Your task to perform on an android device: toggle improve location accuracy Image 0: 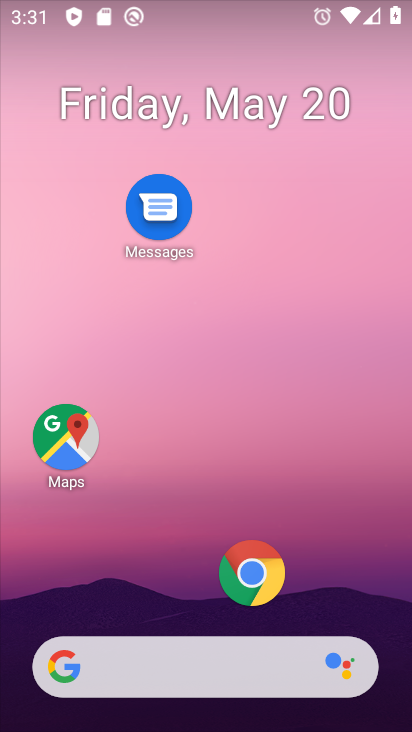
Step 0: drag from (196, 615) to (354, 463)
Your task to perform on an android device: toggle improve location accuracy Image 1: 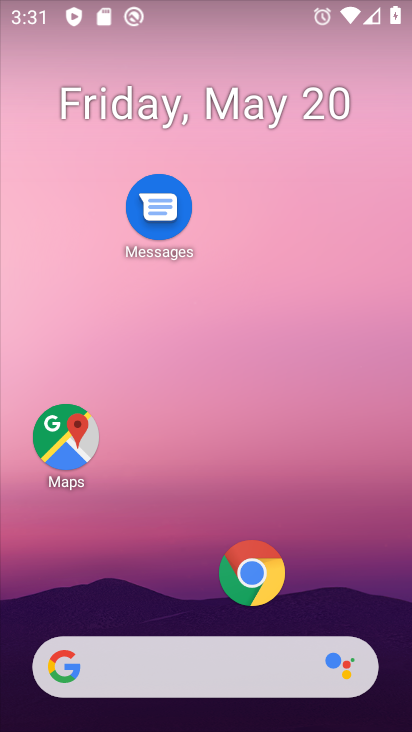
Step 1: click (56, 159)
Your task to perform on an android device: toggle improve location accuracy Image 2: 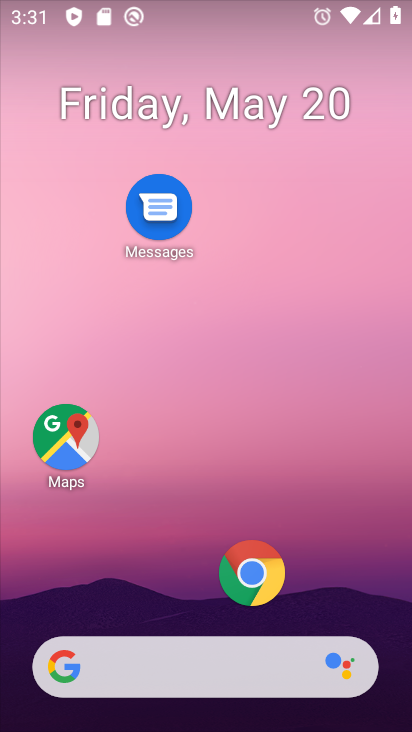
Step 2: drag from (213, 609) to (170, 40)
Your task to perform on an android device: toggle improve location accuracy Image 3: 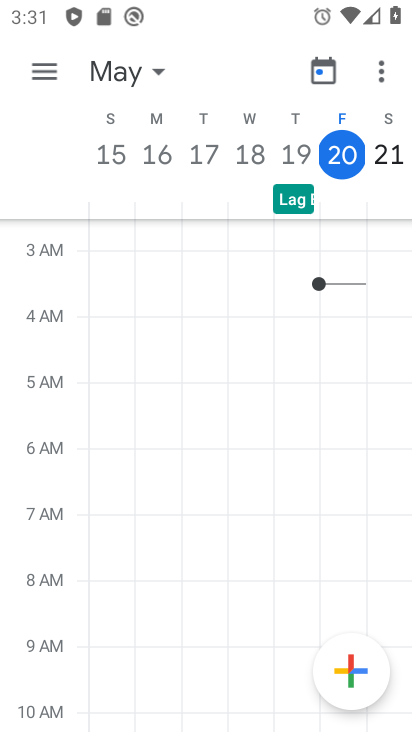
Step 3: press home button
Your task to perform on an android device: toggle improve location accuracy Image 4: 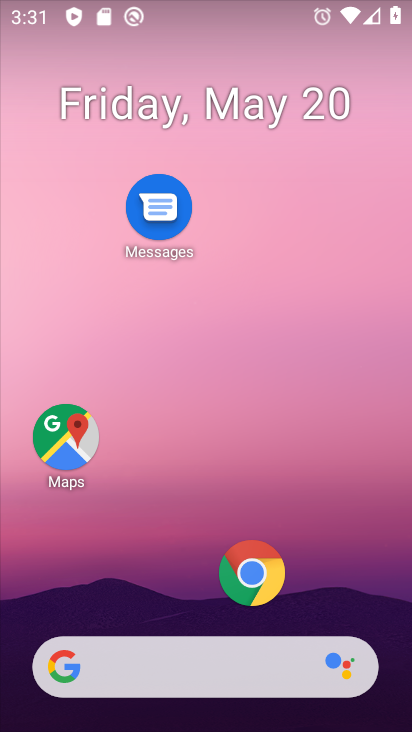
Step 4: drag from (225, 640) to (291, 12)
Your task to perform on an android device: toggle improve location accuracy Image 5: 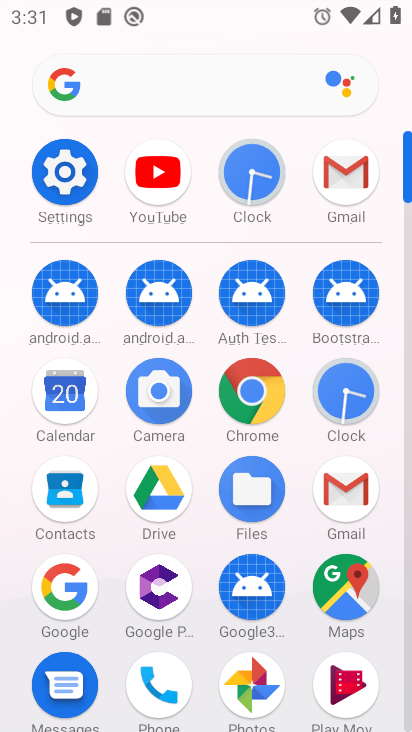
Step 5: click (74, 161)
Your task to perform on an android device: toggle improve location accuracy Image 6: 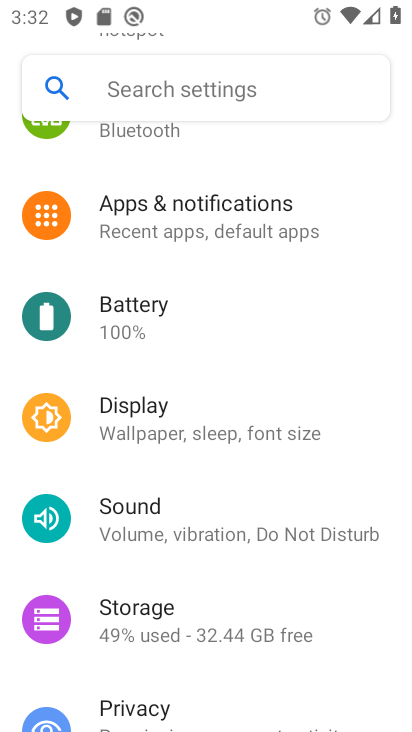
Step 6: drag from (179, 620) to (162, 78)
Your task to perform on an android device: toggle improve location accuracy Image 7: 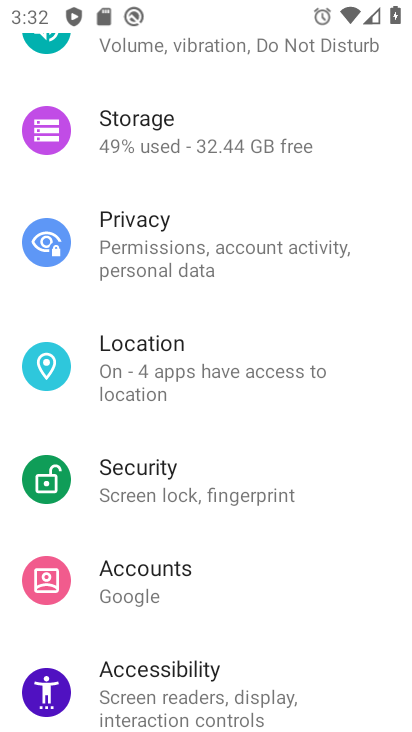
Step 7: click (140, 380)
Your task to perform on an android device: toggle improve location accuracy Image 8: 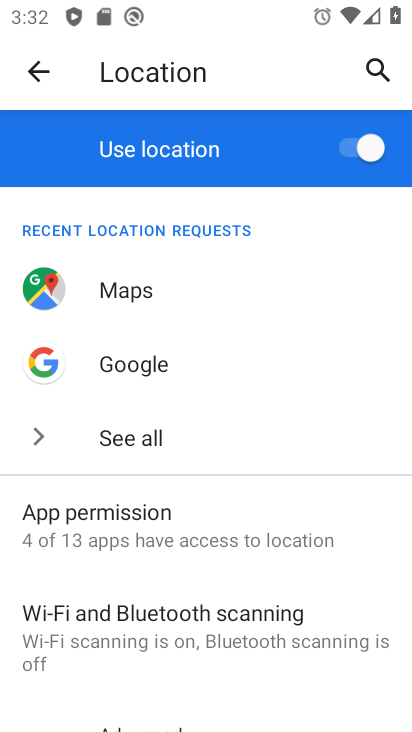
Step 8: drag from (155, 564) to (124, 156)
Your task to perform on an android device: toggle improve location accuracy Image 9: 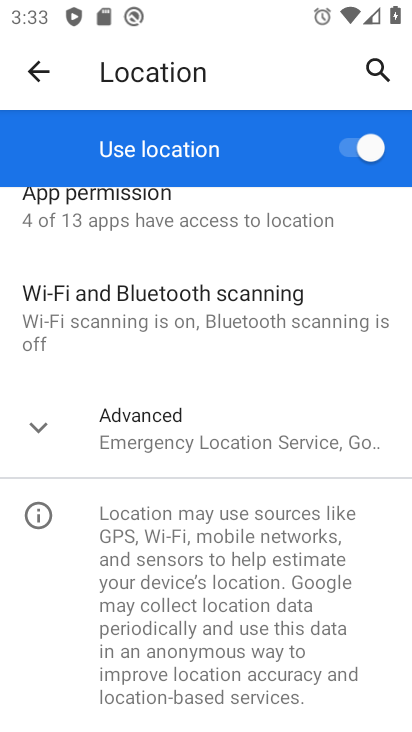
Step 9: click (173, 438)
Your task to perform on an android device: toggle improve location accuracy Image 10: 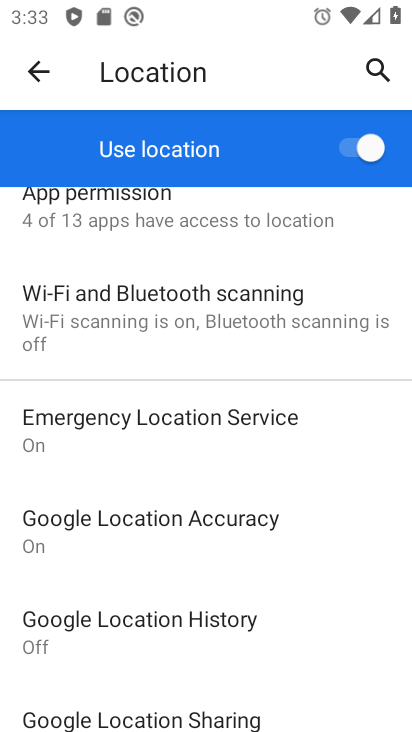
Step 10: click (256, 532)
Your task to perform on an android device: toggle improve location accuracy Image 11: 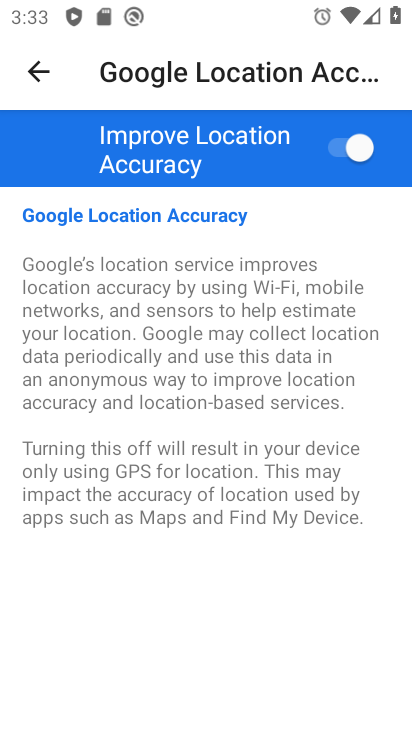
Step 11: click (354, 136)
Your task to perform on an android device: toggle improve location accuracy Image 12: 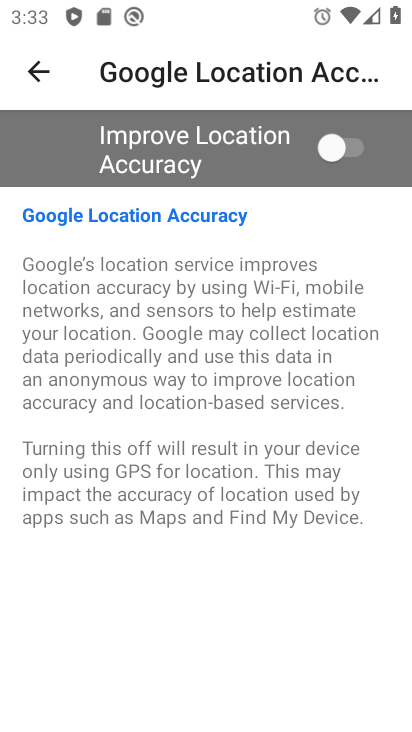
Step 12: task complete